Your task to perform on an android device: turn on wifi Image 0: 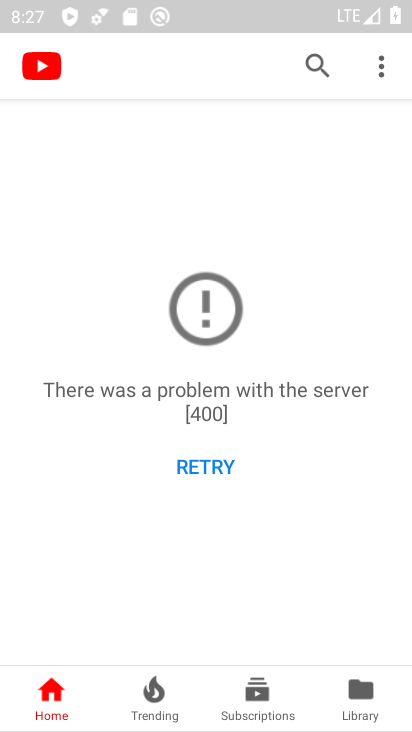
Step 0: press home button
Your task to perform on an android device: turn on wifi Image 1: 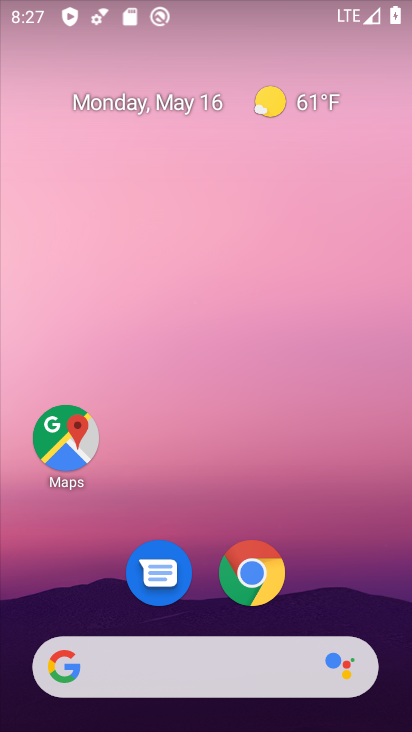
Step 1: drag from (214, 728) to (216, 180)
Your task to perform on an android device: turn on wifi Image 2: 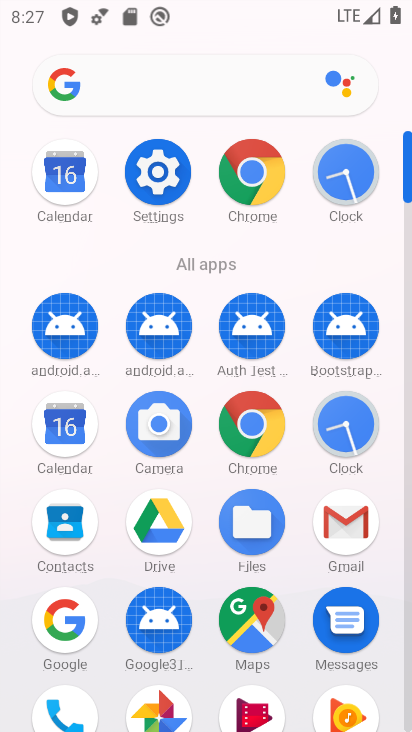
Step 2: click (152, 167)
Your task to perform on an android device: turn on wifi Image 3: 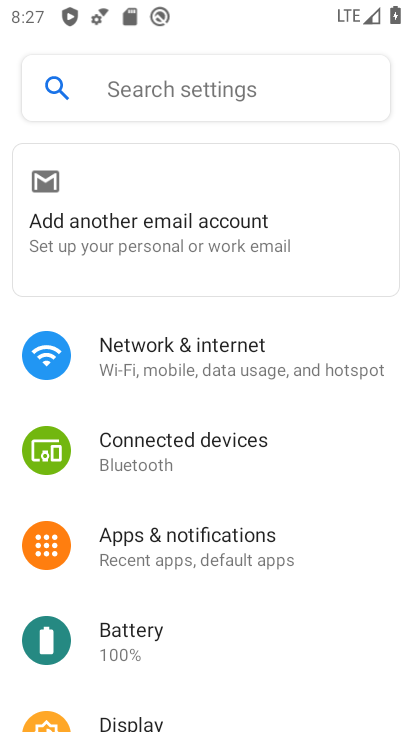
Step 3: click (186, 350)
Your task to perform on an android device: turn on wifi Image 4: 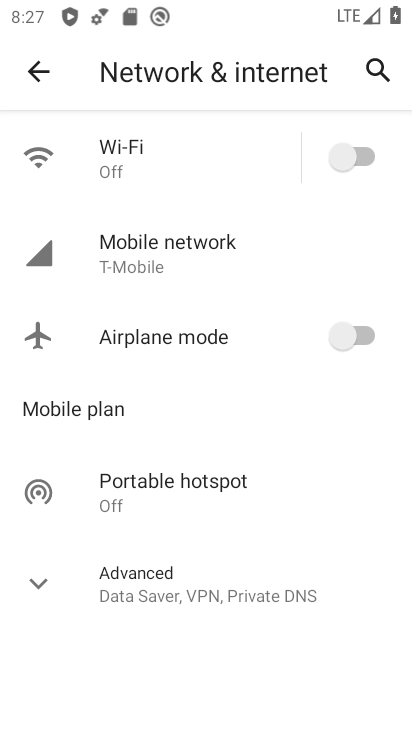
Step 4: click (368, 152)
Your task to perform on an android device: turn on wifi Image 5: 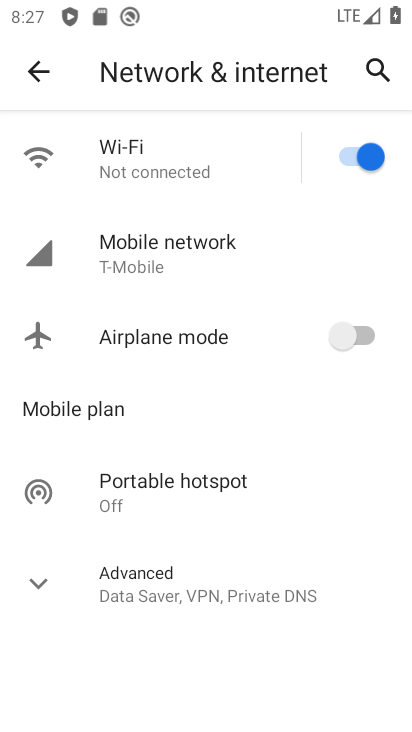
Step 5: task complete